Your task to perform on an android device: check storage Image 0: 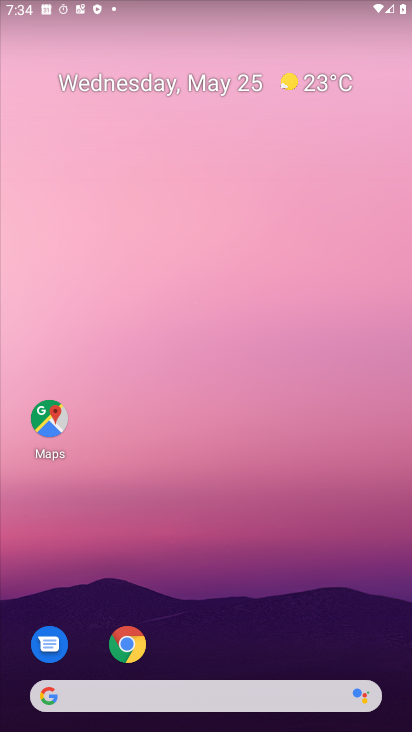
Step 0: press home button
Your task to perform on an android device: check storage Image 1: 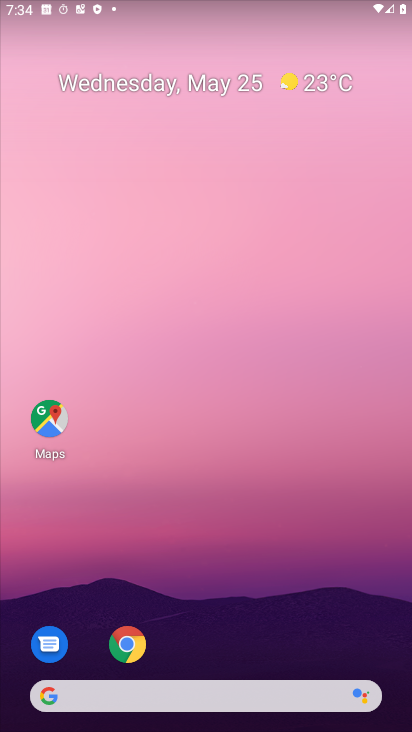
Step 1: drag from (250, 646) to (294, 205)
Your task to perform on an android device: check storage Image 2: 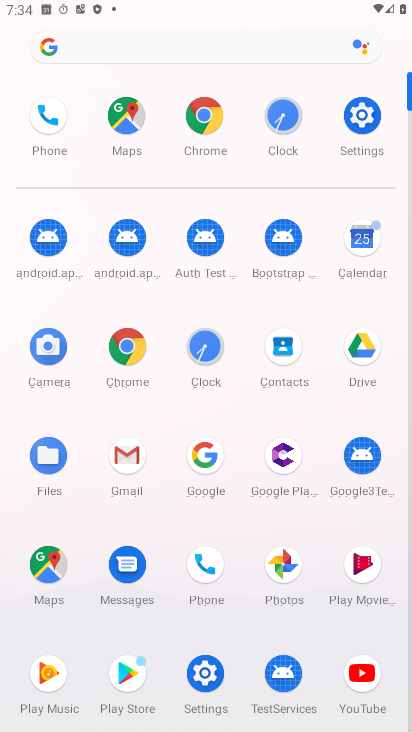
Step 2: click (344, 116)
Your task to perform on an android device: check storage Image 3: 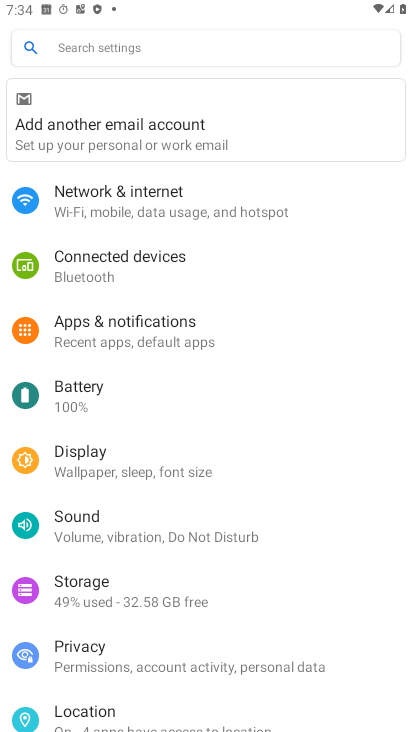
Step 3: click (156, 46)
Your task to perform on an android device: check storage Image 4: 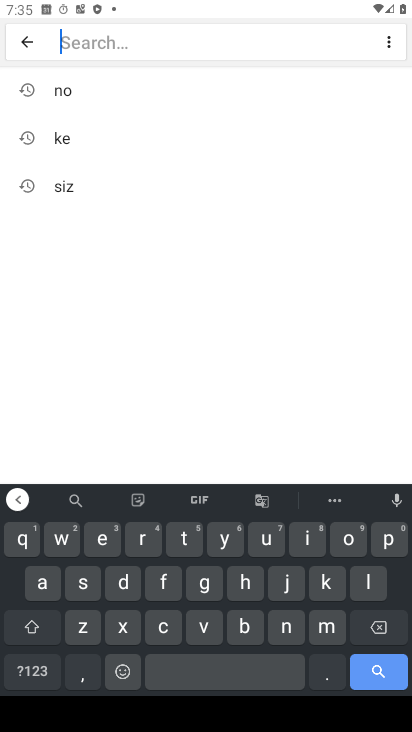
Step 4: click (84, 581)
Your task to perform on an android device: check storage Image 5: 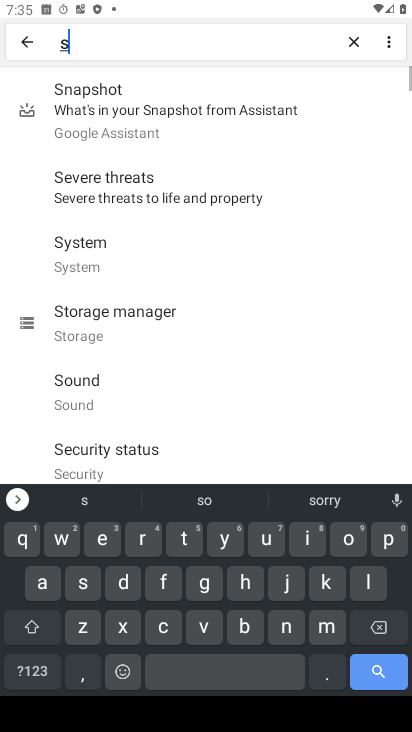
Step 5: click (180, 539)
Your task to perform on an android device: check storage Image 6: 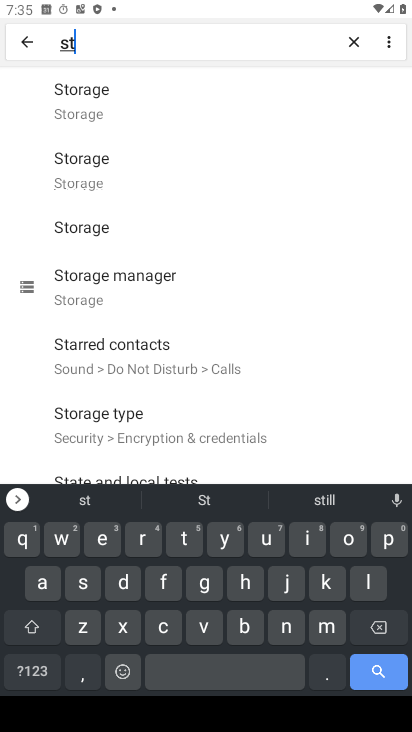
Step 6: click (182, 97)
Your task to perform on an android device: check storage Image 7: 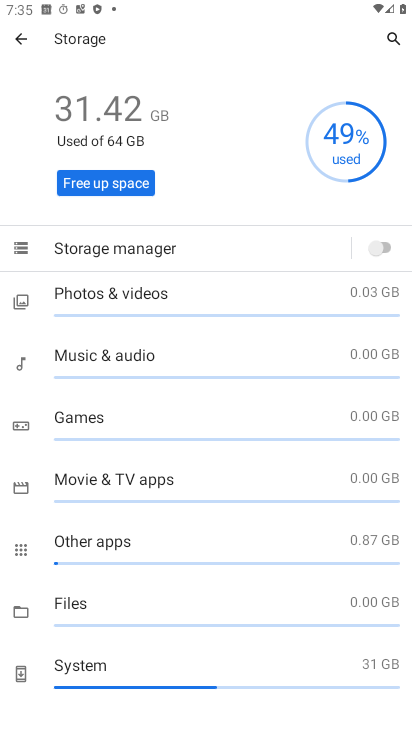
Step 7: task complete